Your task to perform on an android device: turn vacation reply on in the gmail app Image 0: 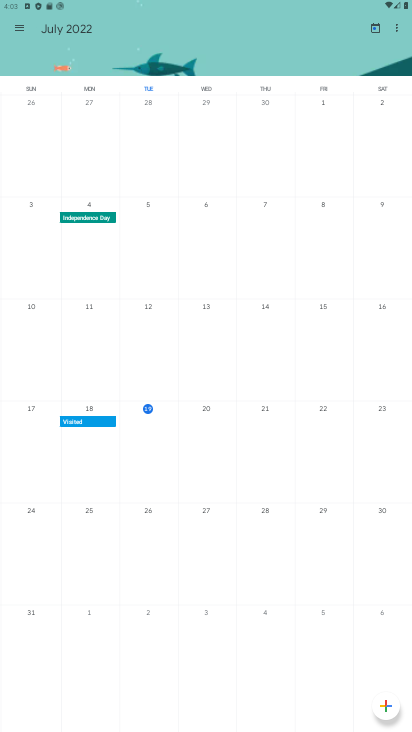
Step 0: press home button
Your task to perform on an android device: turn vacation reply on in the gmail app Image 1: 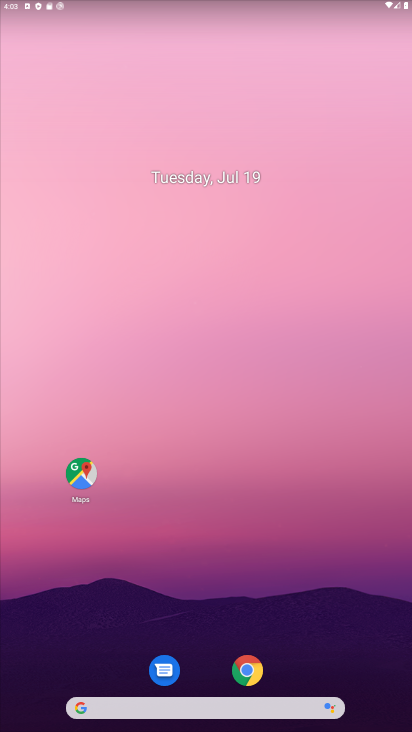
Step 1: drag from (282, 700) to (360, 159)
Your task to perform on an android device: turn vacation reply on in the gmail app Image 2: 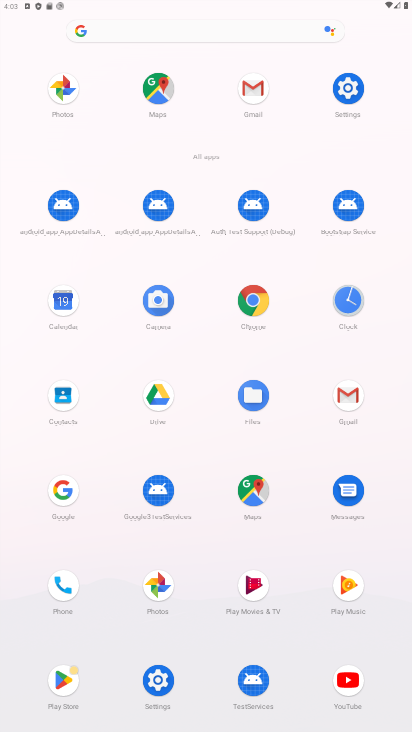
Step 2: click (357, 387)
Your task to perform on an android device: turn vacation reply on in the gmail app Image 3: 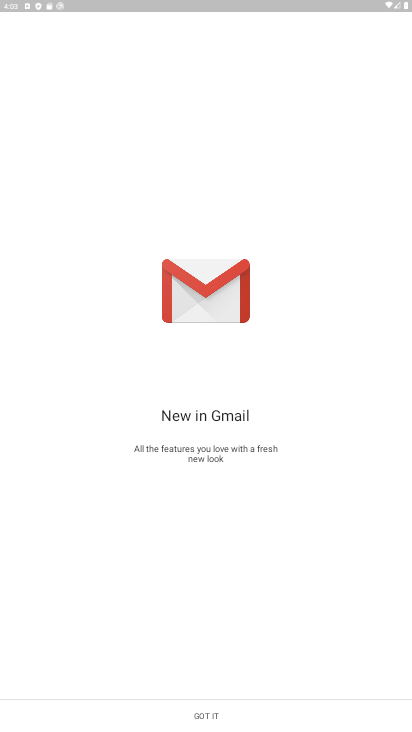
Step 3: click (212, 713)
Your task to perform on an android device: turn vacation reply on in the gmail app Image 4: 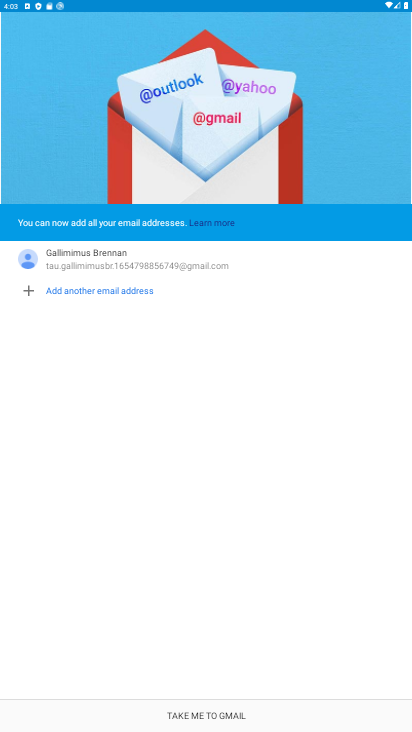
Step 4: click (213, 710)
Your task to perform on an android device: turn vacation reply on in the gmail app Image 5: 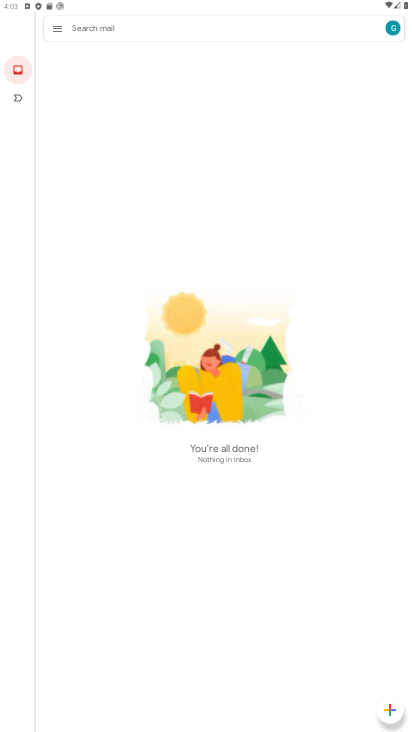
Step 5: click (51, 26)
Your task to perform on an android device: turn vacation reply on in the gmail app Image 6: 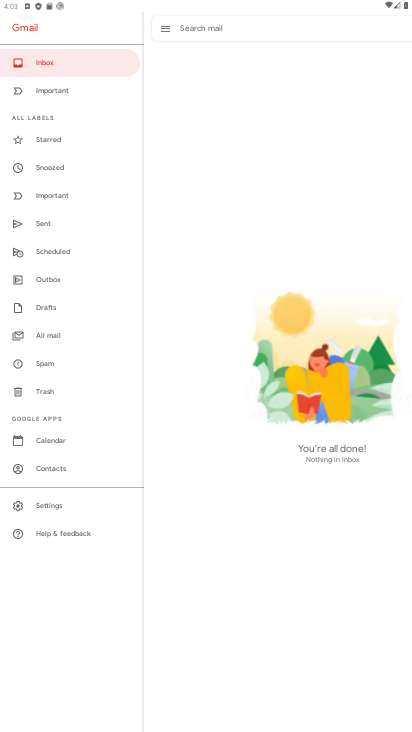
Step 6: click (53, 509)
Your task to perform on an android device: turn vacation reply on in the gmail app Image 7: 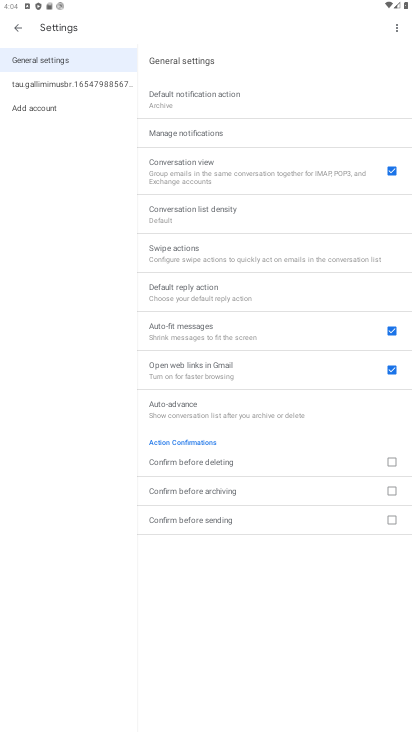
Step 7: click (72, 83)
Your task to perform on an android device: turn vacation reply on in the gmail app Image 8: 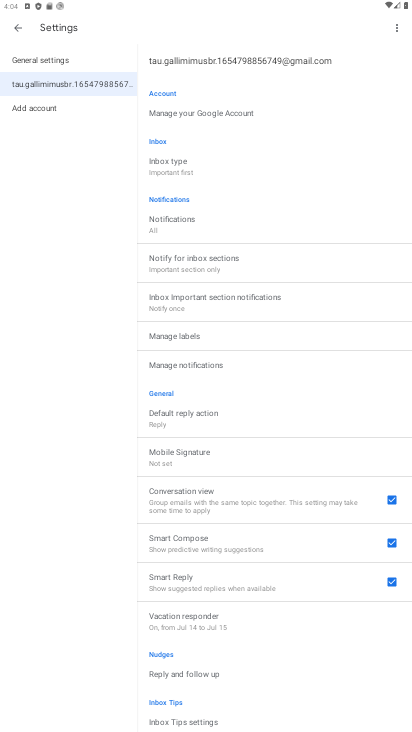
Step 8: click (209, 616)
Your task to perform on an android device: turn vacation reply on in the gmail app Image 9: 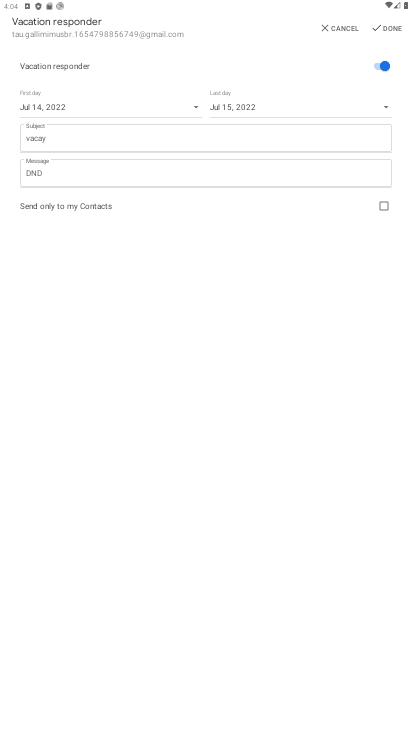
Step 9: click (393, 28)
Your task to perform on an android device: turn vacation reply on in the gmail app Image 10: 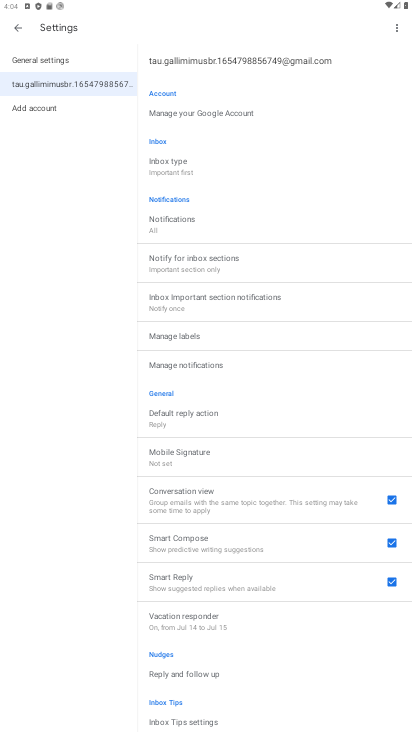
Step 10: task complete